Your task to perform on an android device: Do I have any events this weekend? Image 0: 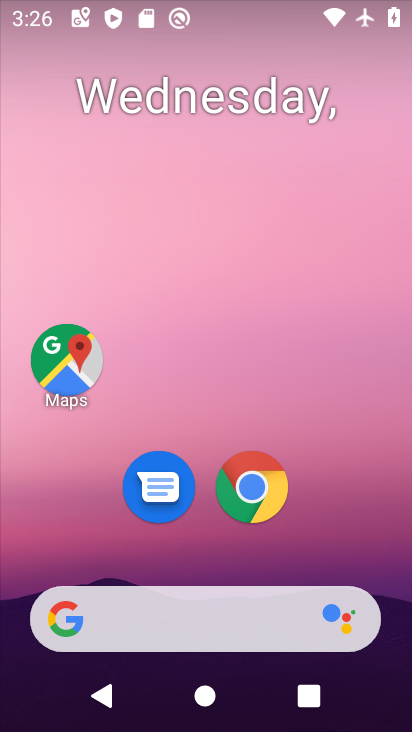
Step 0: drag from (341, 529) to (312, 109)
Your task to perform on an android device: Do I have any events this weekend? Image 1: 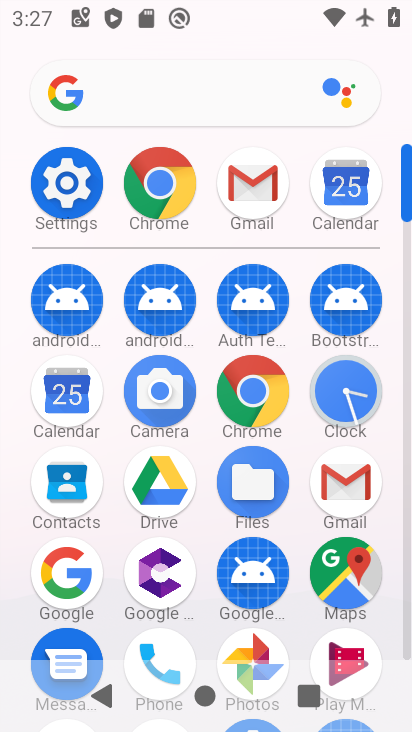
Step 1: click (61, 416)
Your task to perform on an android device: Do I have any events this weekend? Image 2: 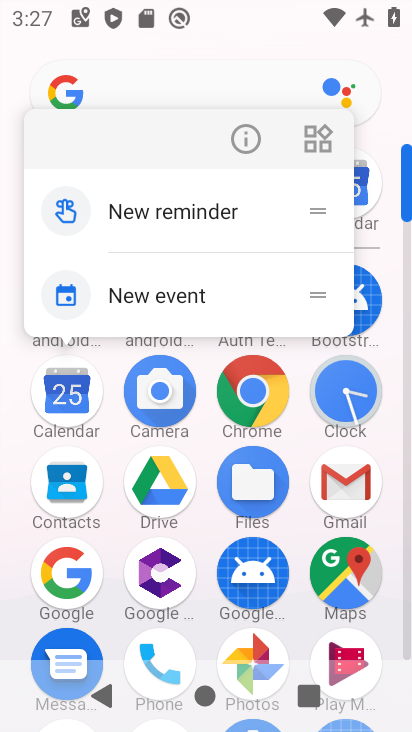
Step 2: click (61, 415)
Your task to perform on an android device: Do I have any events this weekend? Image 3: 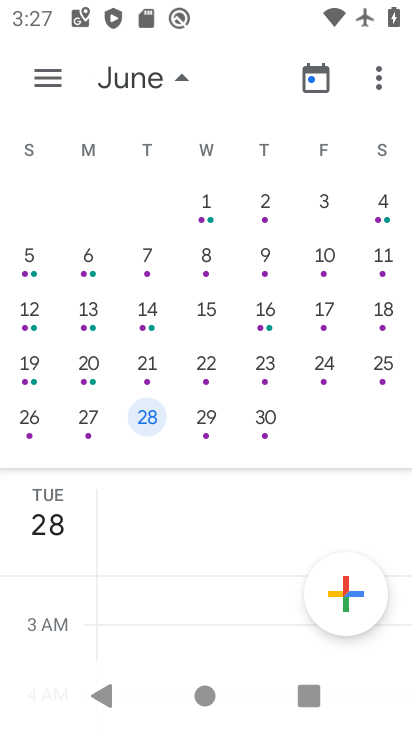
Step 3: click (202, 420)
Your task to perform on an android device: Do I have any events this weekend? Image 4: 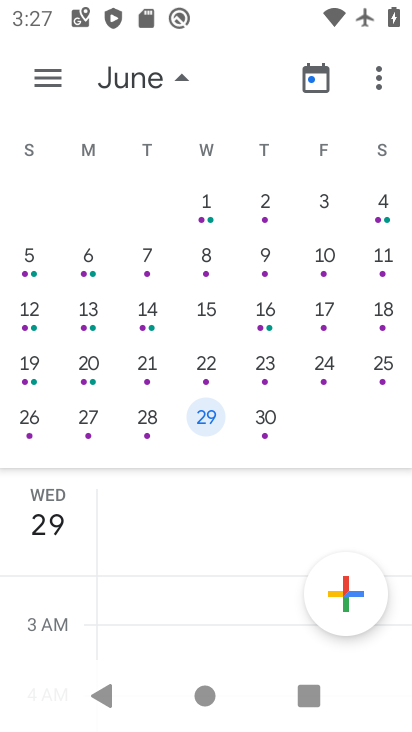
Step 4: task complete